Your task to perform on an android device: What's on my calendar today? Image 0: 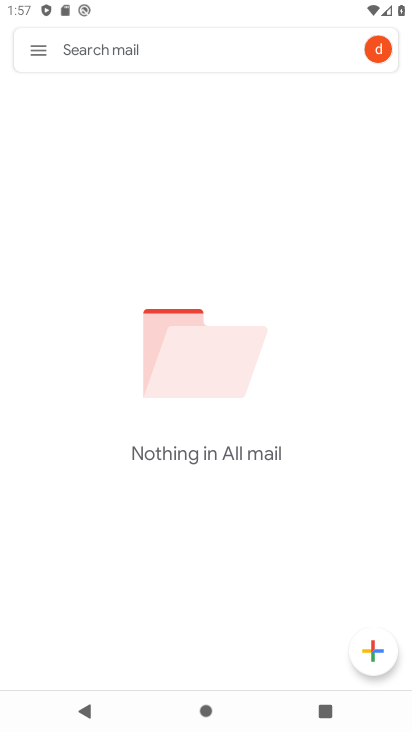
Step 0: press home button
Your task to perform on an android device: What's on my calendar today? Image 1: 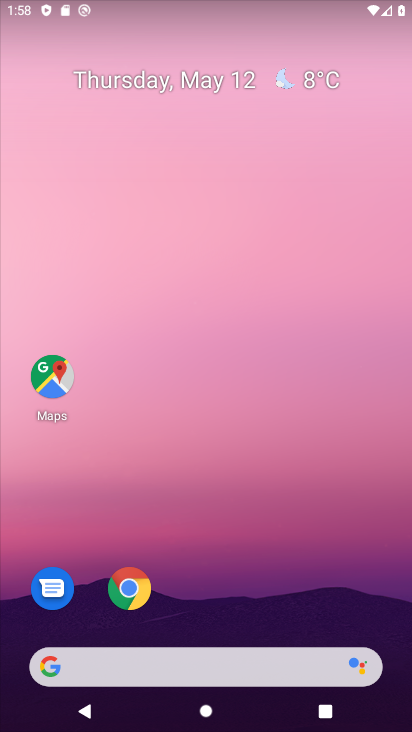
Step 1: drag from (279, 586) to (250, 42)
Your task to perform on an android device: What's on my calendar today? Image 2: 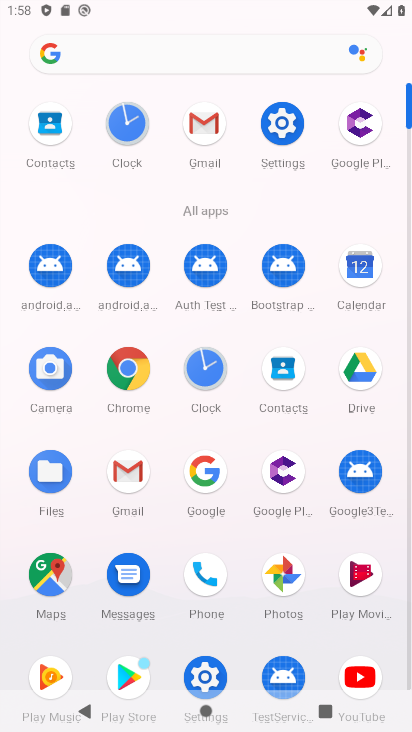
Step 2: click (363, 297)
Your task to perform on an android device: What's on my calendar today? Image 3: 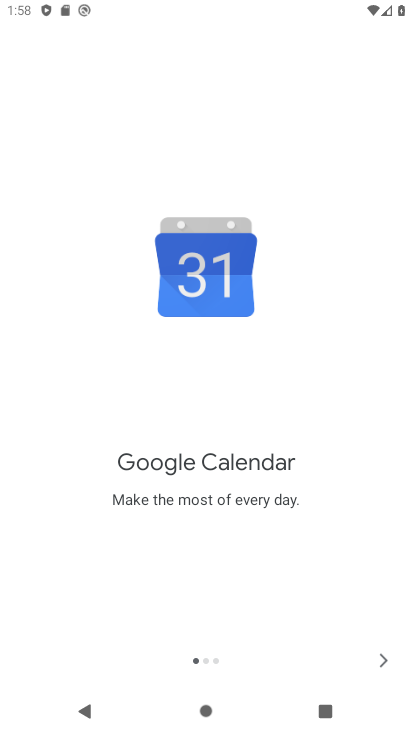
Step 3: click (375, 647)
Your task to perform on an android device: What's on my calendar today? Image 4: 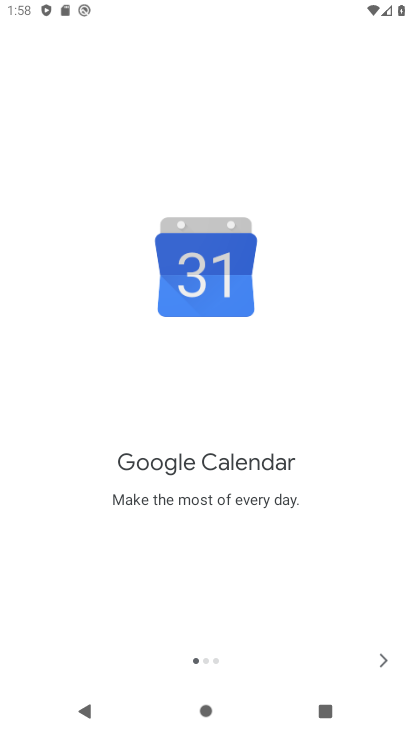
Step 4: click (375, 647)
Your task to perform on an android device: What's on my calendar today? Image 5: 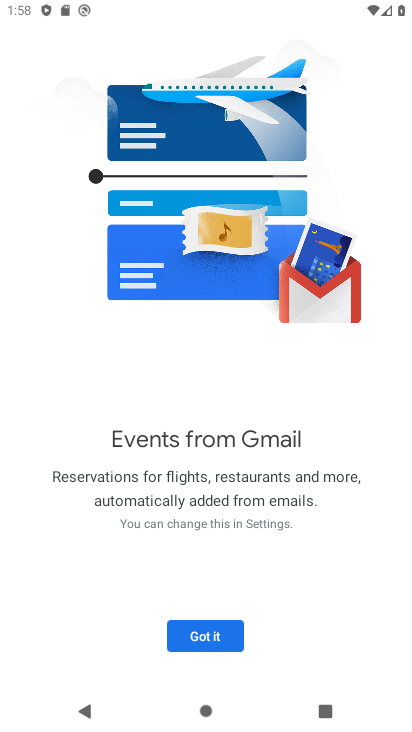
Step 5: click (196, 630)
Your task to perform on an android device: What's on my calendar today? Image 6: 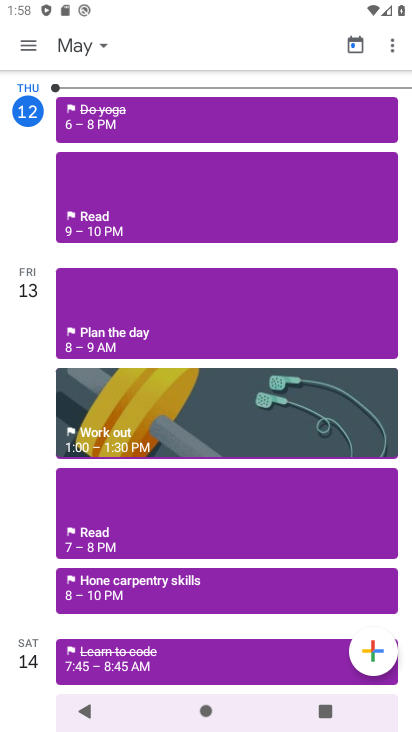
Step 6: click (196, 630)
Your task to perform on an android device: What's on my calendar today? Image 7: 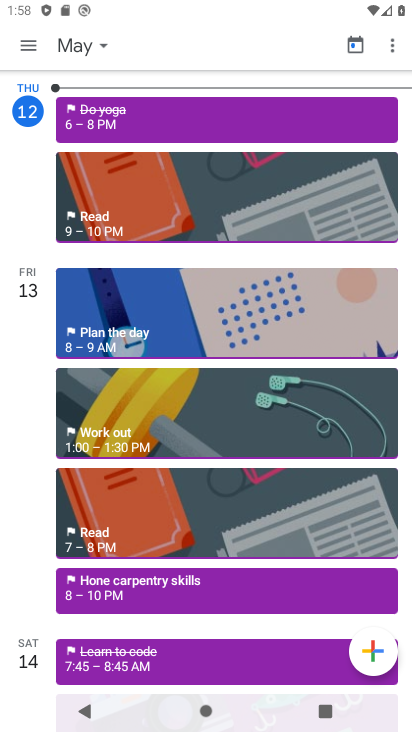
Step 7: task complete